Your task to perform on an android device: Open location settings Image 0: 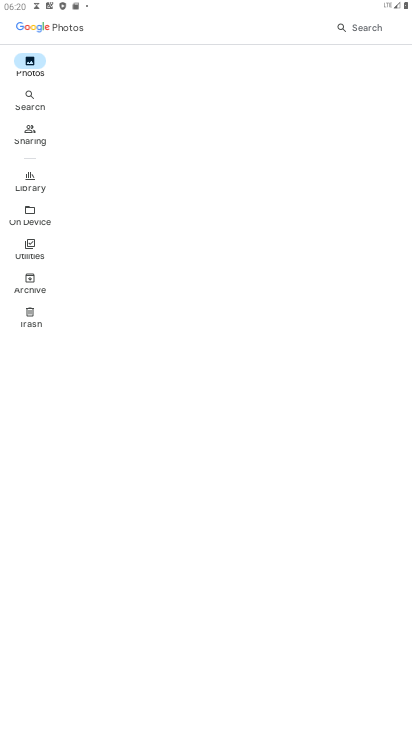
Step 0: press home button
Your task to perform on an android device: Open location settings Image 1: 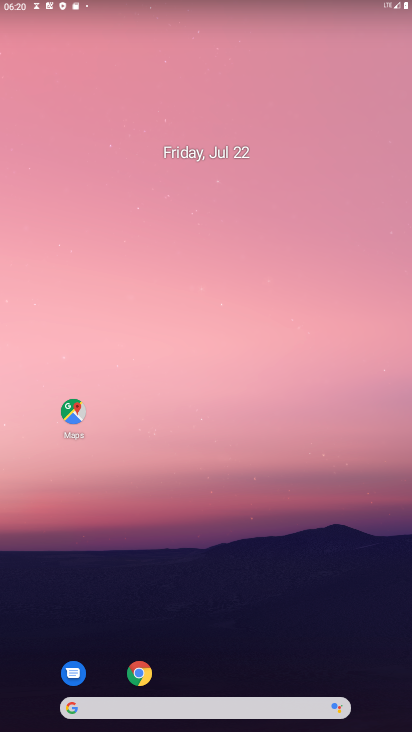
Step 1: drag from (264, 549) to (341, 148)
Your task to perform on an android device: Open location settings Image 2: 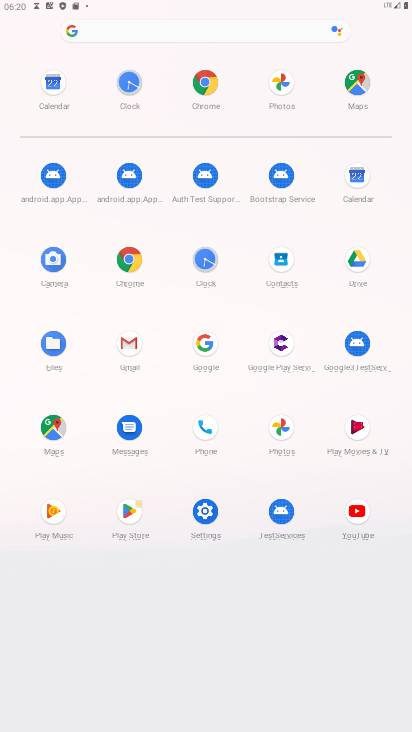
Step 2: click (210, 519)
Your task to perform on an android device: Open location settings Image 3: 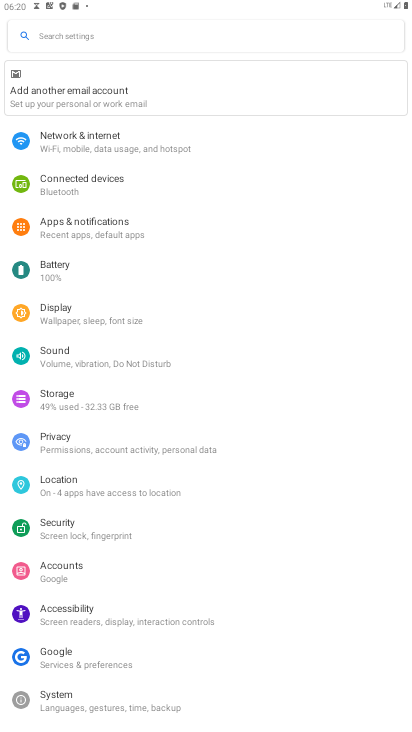
Step 3: click (62, 484)
Your task to perform on an android device: Open location settings Image 4: 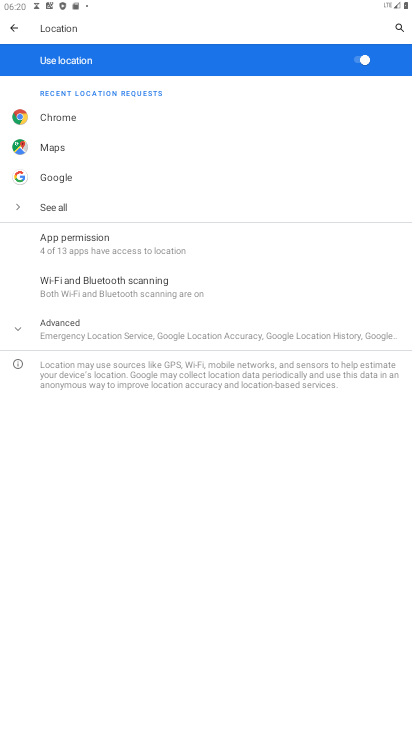
Step 4: task complete